Your task to perform on an android device: change your default location settings in chrome Image 0: 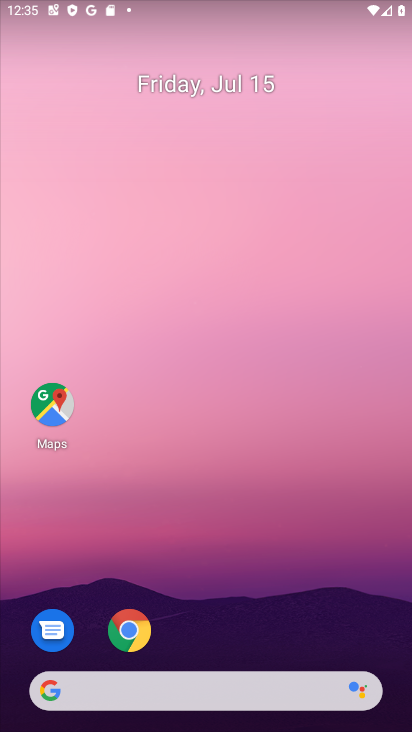
Step 0: click (128, 617)
Your task to perform on an android device: change your default location settings in chrome Image 1: 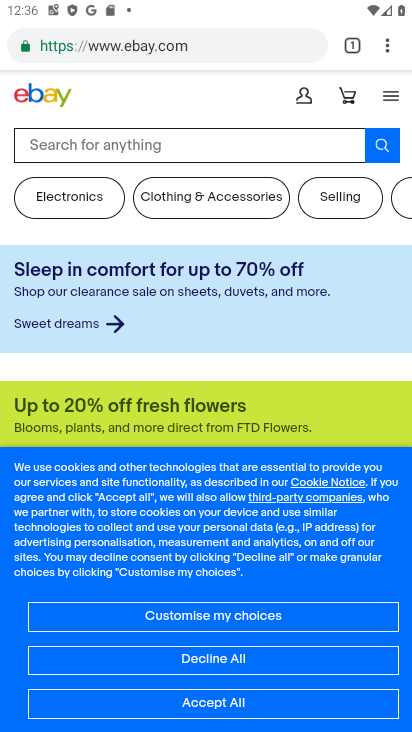
Step 1: click (379, 43)
Your task to perform on an android device: change your default location settings in chrome Image 2: 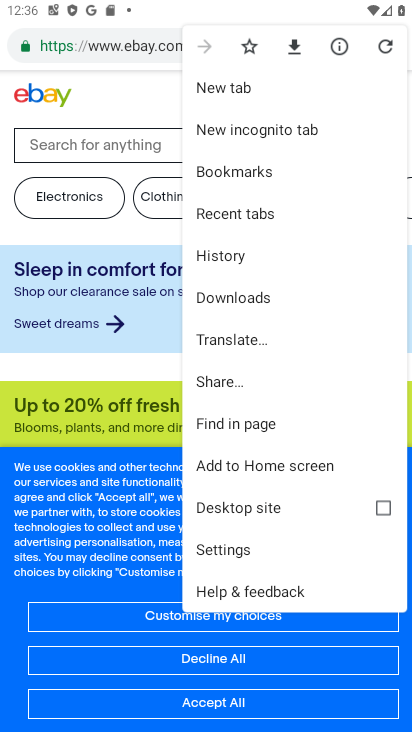
Step 2: click (206, 546)
Your task to perform on an android device: change your default location settings in chrome Image 3: 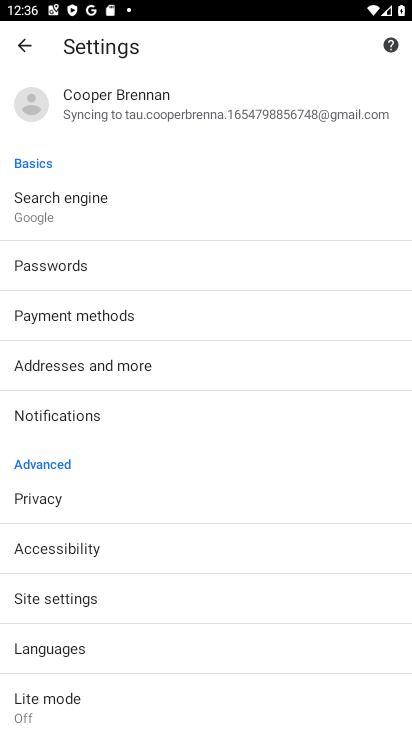
Step 3: click (133, 574)
Your task to perform on an android device: change your default location settings in chrome Image 4: 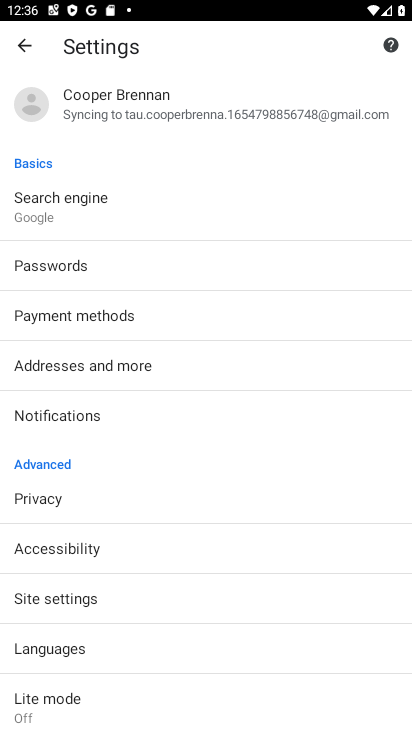
Step 4: click (133, 585)
Your task to perform on an android device: change your default location settings in chrome Image 5: 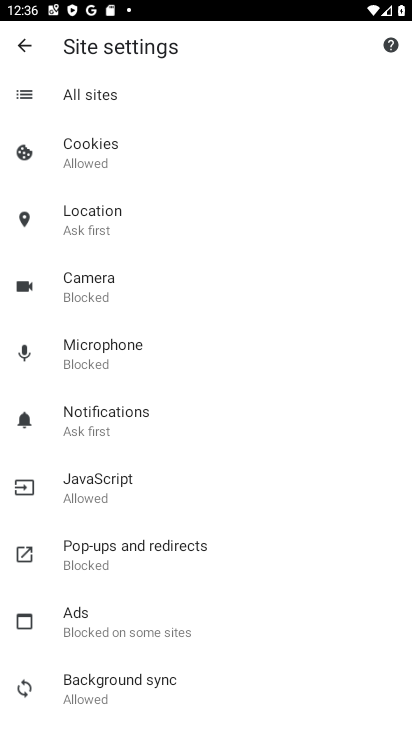
Step 5: click (143, 223)
Your task to perform on an android device: change your default location settings in chrome Image 6: 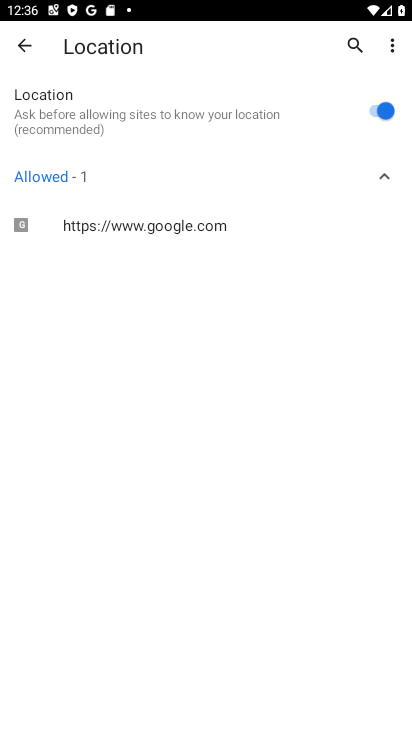
Step 6: click (385, 114)
Your task to perform on an android device: change your default location settings in chrome Image 7: 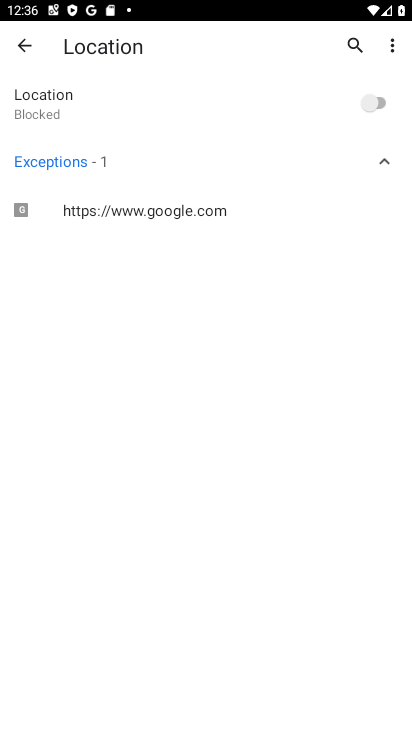
Step 7: task complete